Your task to perform on an android device: Open Google Chrome and open the bookmarks view Image 0: 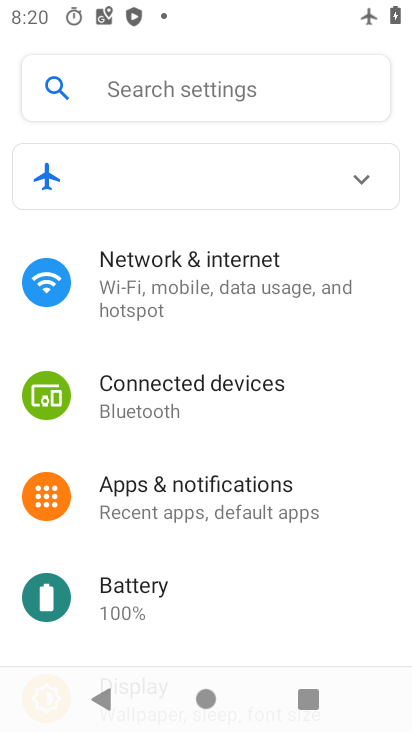
Step 0: press home button
Your task to perform on an android device: Open Google Chrome and open the bookmarks view Image 1: 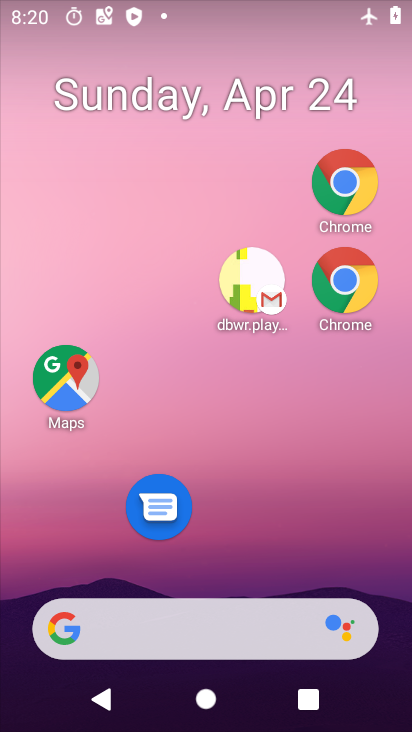
Step 1: drag from (350, 542) to (203, 115)
Your task to perform on an android device: Open Google Chrome and open the bookmarks view Image 2: 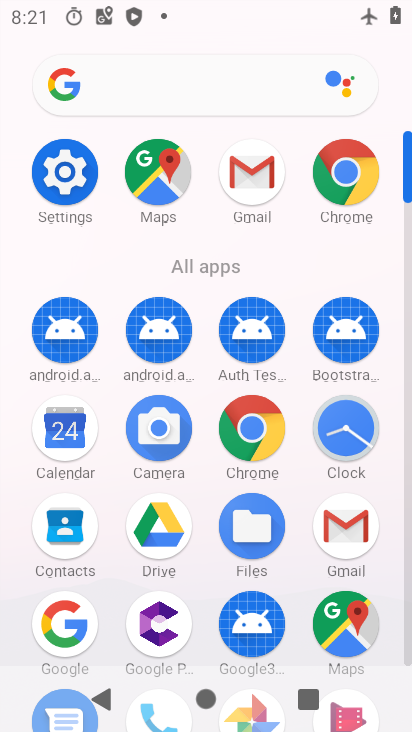
Step 2: click (359, 170)
Your task to perform on an android device: Open Google Chrome and open the bookmarks view Image 3: 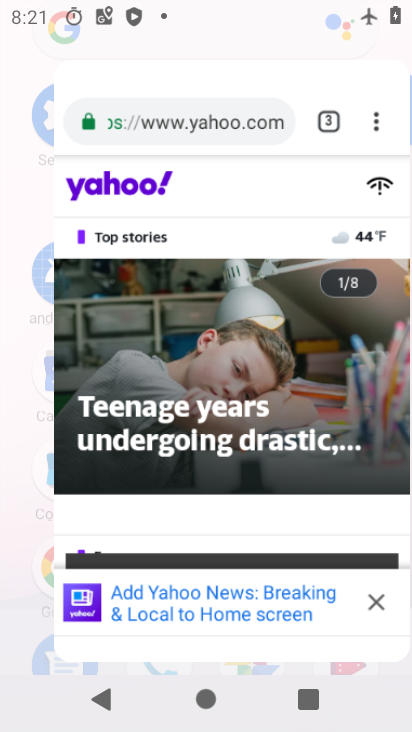
Step 3: click (359, 171)
Your task to perform on an android device: Open Google Chrome and open the bookmarks view Image 4: 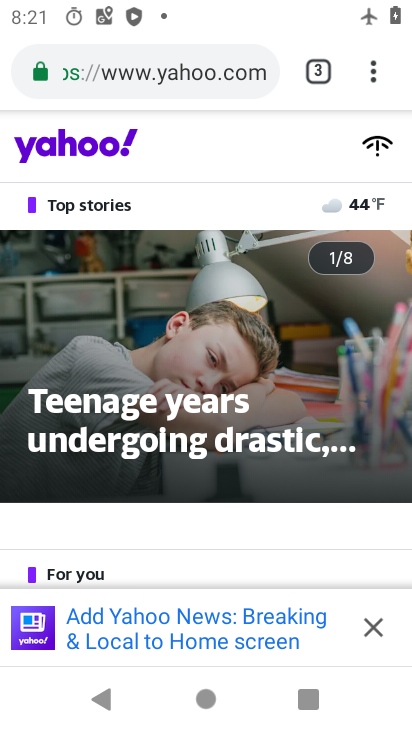
Step 4: task complete